Your task to perform on an android device: add a contact Image 0: 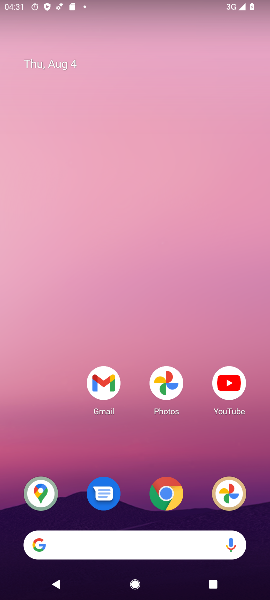
Step 0: drag from (66, 577) to (117, 139)
Your task to perform on an android device: add a contact Image 1: 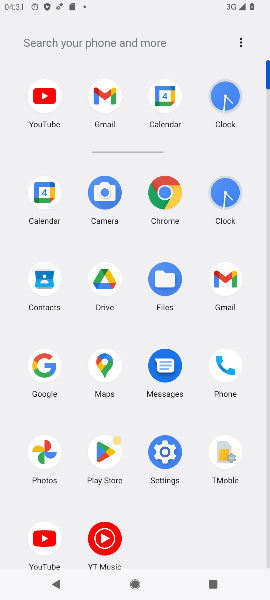
Step 1: click (41, 296)
Your task to perform on an android device: add a contact Image 2: 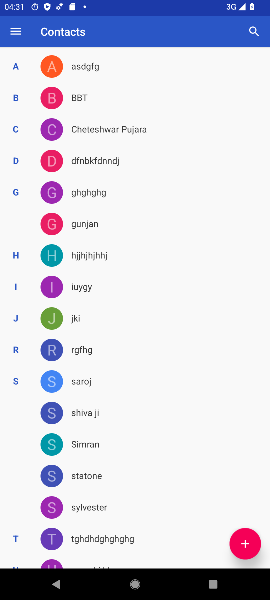
Step 2: click (244, 541)
Your task to perform on an android device: add a contact Image 3: 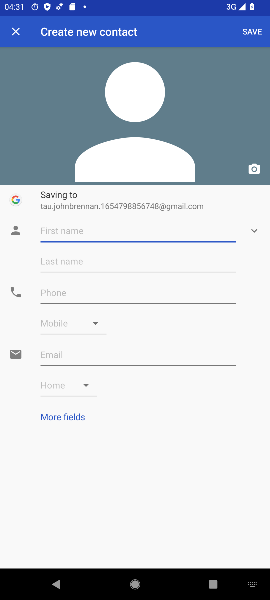
Step 3: type "hgftyfy"
Your task to perform on an android device: add a contact Image 4: 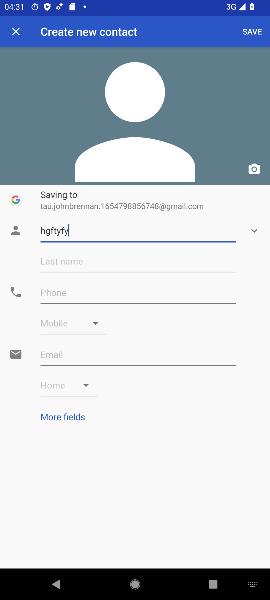
Step 4: type ""
Your task to perform on an android device: add a contact Image 5: 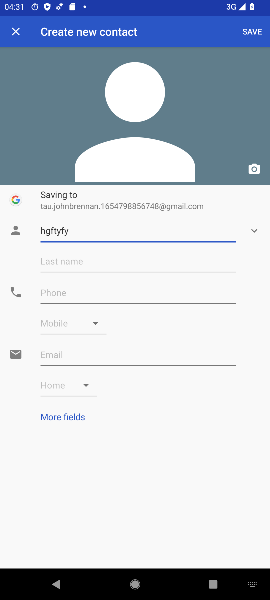
Step 5: click (246, 28)
Your task to perform on an android device: add a contact Image 6: 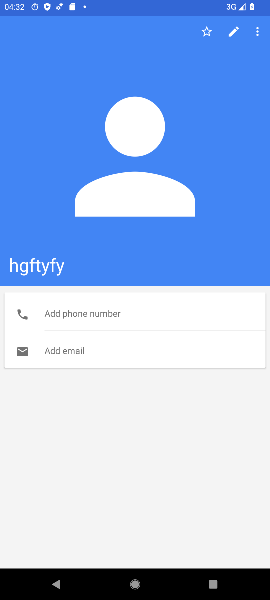
Step 6: task complete